Your task to perform on an android device: see creations saved in the google photos Image 0: 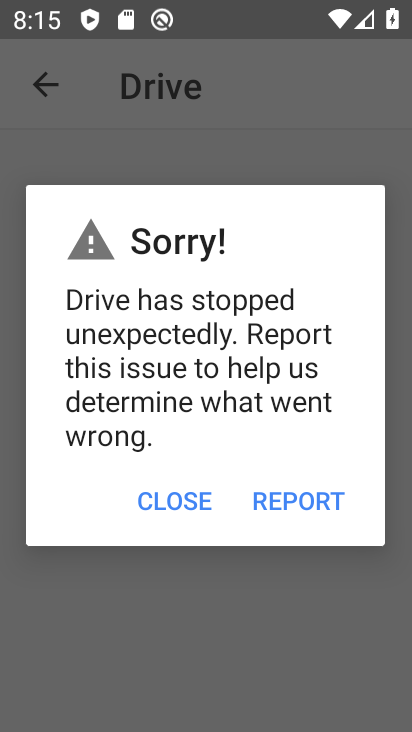
Step 0: press back button
Your task to perform on an android device: see creations saved in the google photos Image 1: 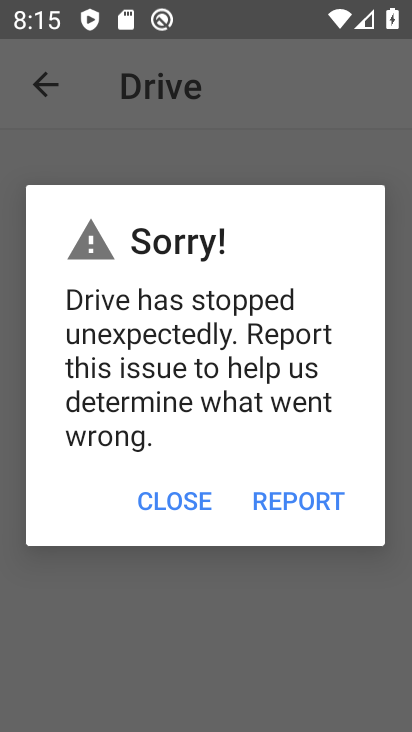
Step 1: press back button
Your task to perform on an android device: see creations saved in the google photos Image 2: 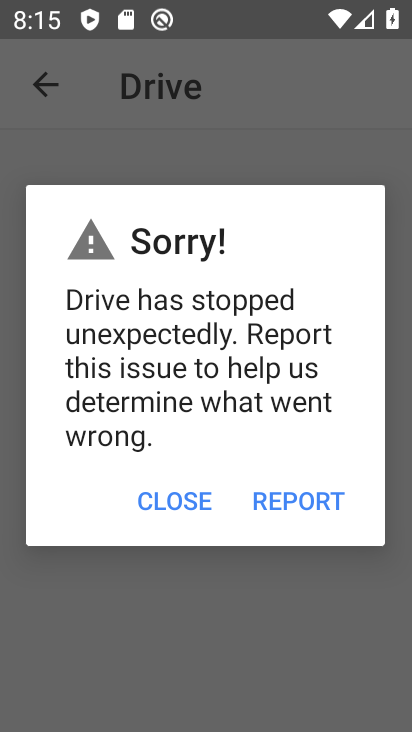
Step 2: press back button
Your task to perform on an android device: see creations saved in the google photos Image 3: 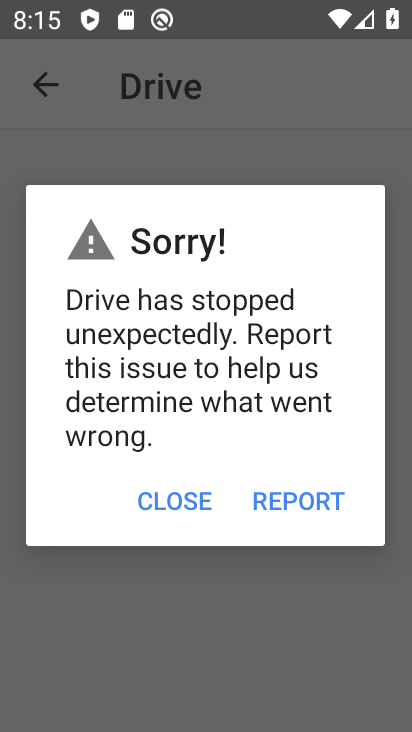
Step 3: press home button
Your task to perform on an android device: see creations saved in the google photos Image 4: 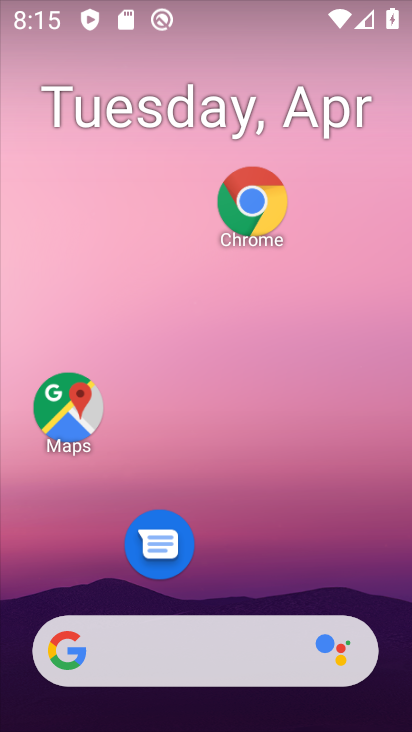
Step 4: drag from (216, 591) to (259, 117)
Your task to perform on an android device: see creations saved in the google photos Image 5: 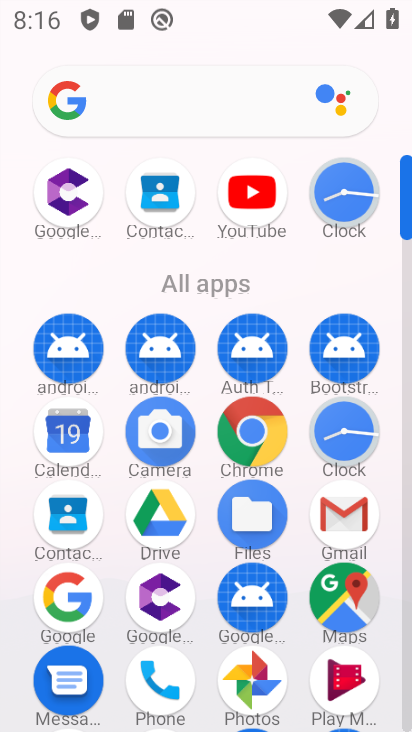
Step 5: click (254, 682)
Your task to perform on an android device: see creations saved in the google photos Image 6: 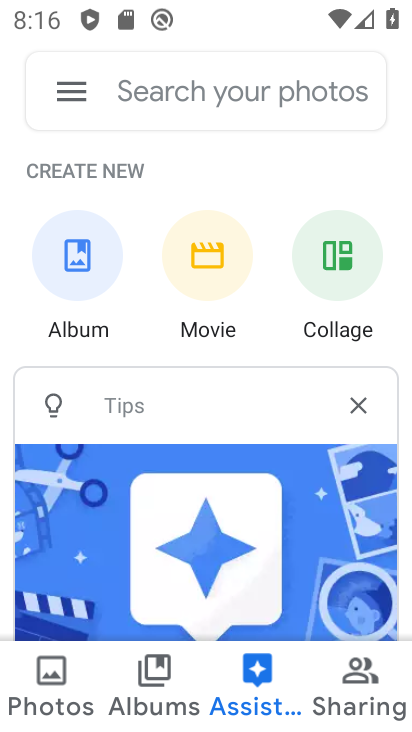
Step 6: click (77, 90)
Your task to perform on an android device: see creations saved in the google photos Image 7: 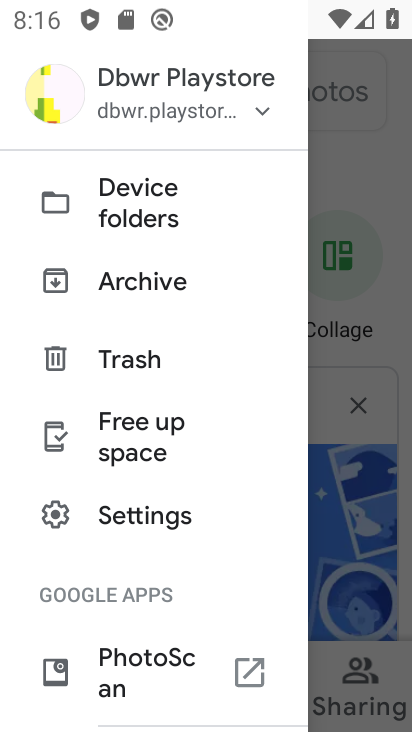
Step 7: click (125, 275)
Your task to perform on an android device: see creations saved in the google photos Image 8: 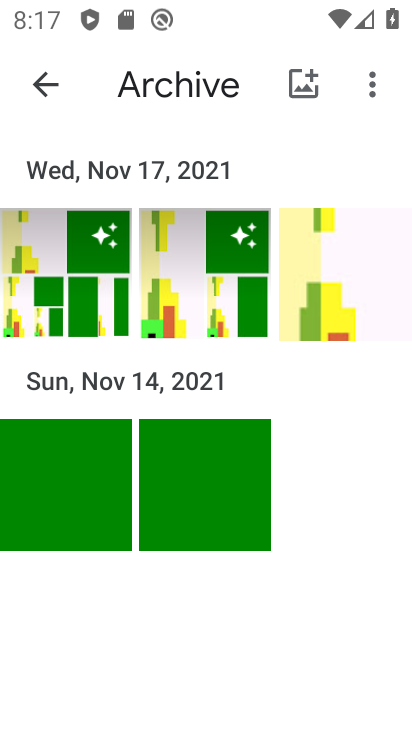
Step 8: task complete